Your task to perform on an android device: Open battery settings Image 0: 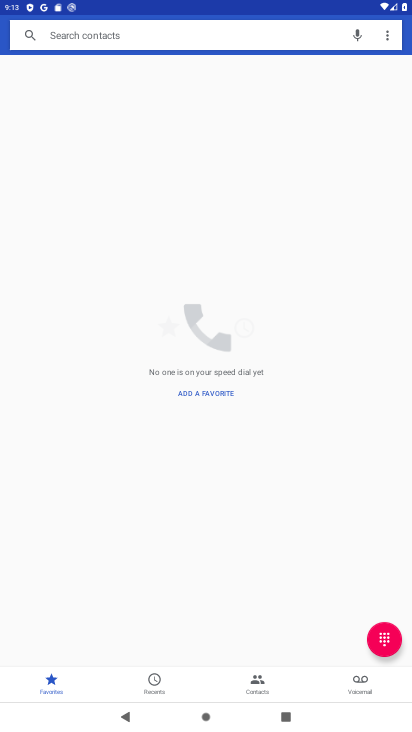
Step 0: press home button
Your task to perform on an android device: Open battery settings Image 1: 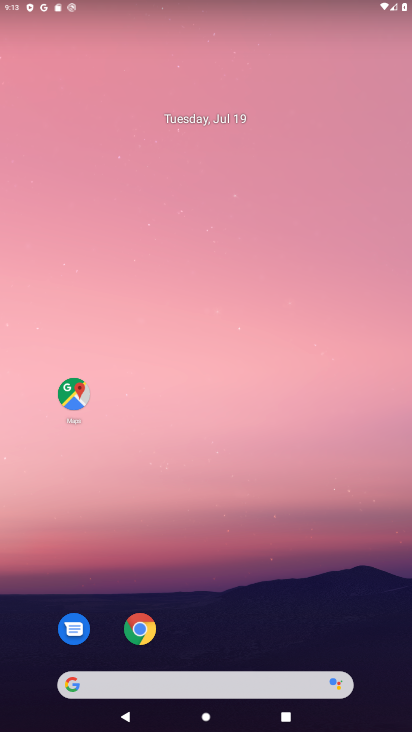
Step 1: drag from (247, 416) to (315, 18)
Your task to perform on an android device: Open battery settings Image 2: 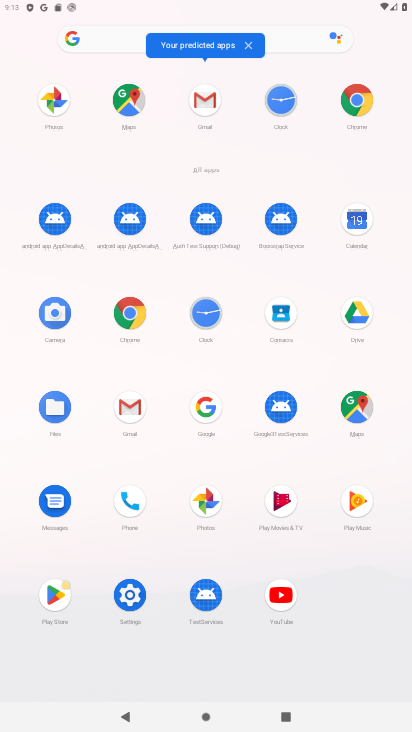
Step 2: click (131, 597)
Your task to perform on an android device: Open battery settings Image 3: 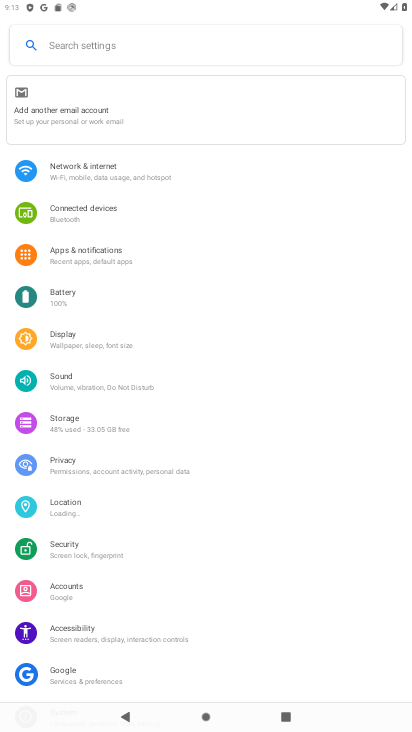
Step 3: click (77, 299)
Your task to perform on an android device: Open battery settings Image 4: 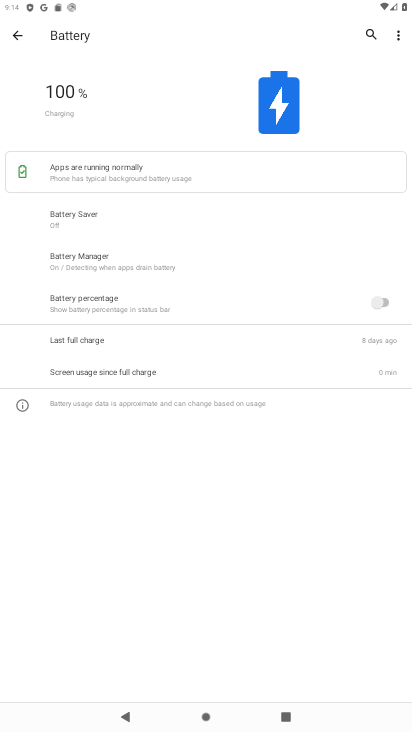
Step 4: task complete